Your task to perform on an android device: Open my contact list Image 0: 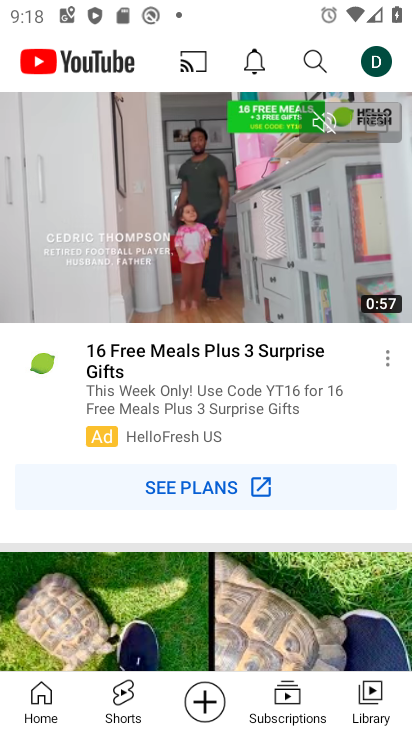
Step 0: press home button
Your task to perform on an android device: Open my contact list Image 1: 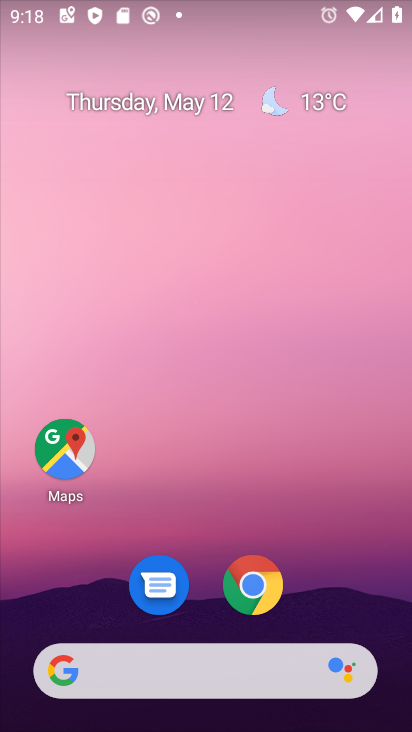
Step 1: drag from (188, 510) to (170, 56)
Your task to perform on an android device: Open my contact list Image 2: 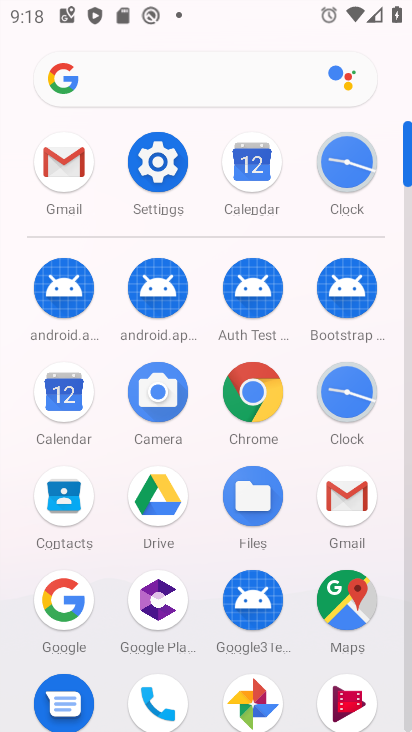
Step 2: click (74, 487)
Your task to perform on an android device: Open my contact list Image 3: 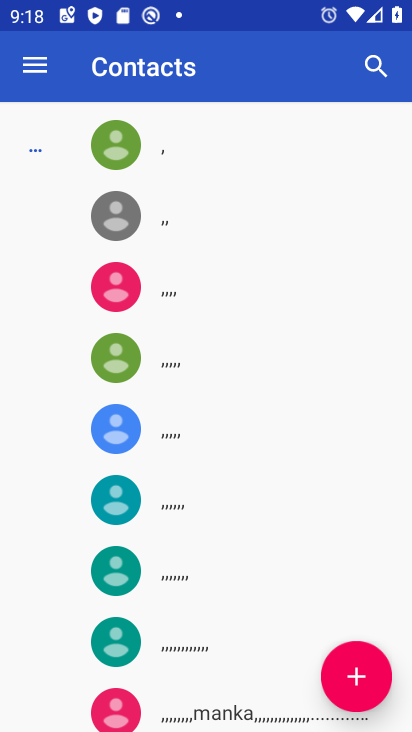
Step 3: task complete